Your task to perform on an android device: Open settings on Google Maps Image 0: 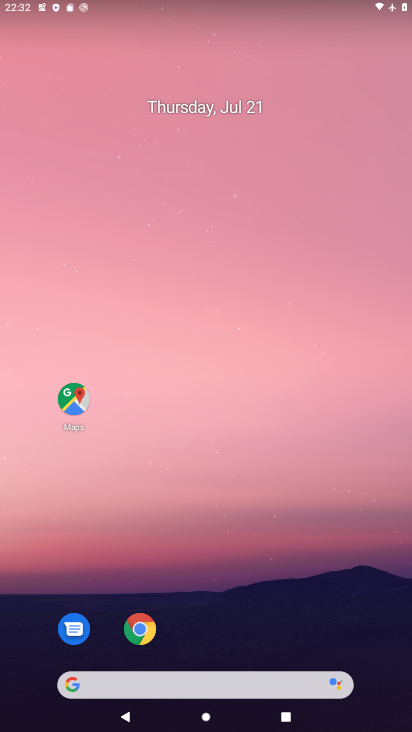
Step 0: press home button
Your task to perform on an android device: Open settings on Google Maps Image 1: 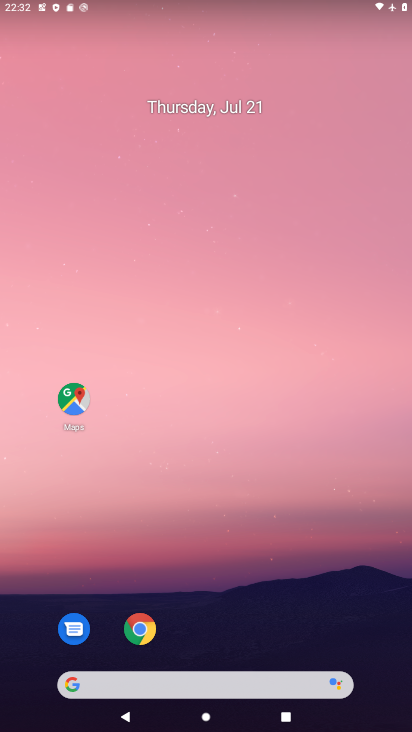
Step 1: drag from (247, 652) to (297, 117)
Your task to perform on an android device: Open settings on Google Maps Image 2: 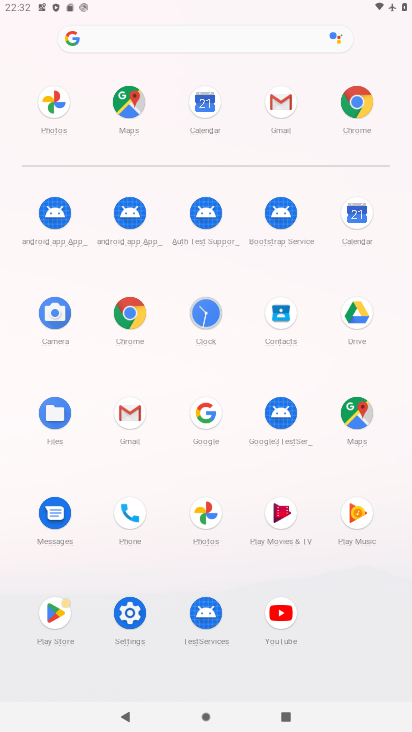
Step 2: click (366, 423)
Your task to perform on an android device: Open settings on Google Maps Image 3: 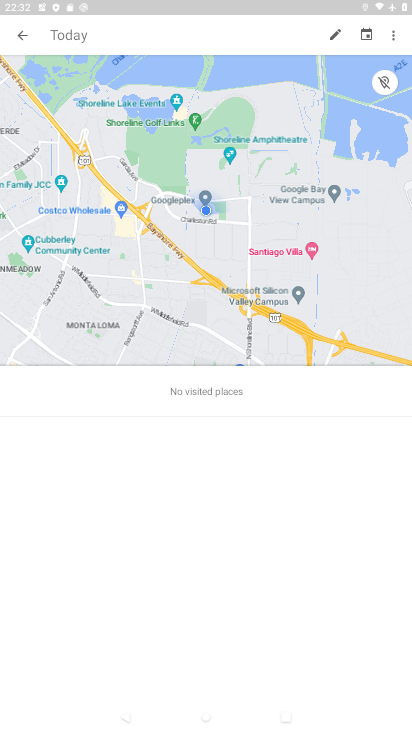
Step 3: click (22, 40)
Your task to perform on an android device: Open settings on Google Maps Image 4: 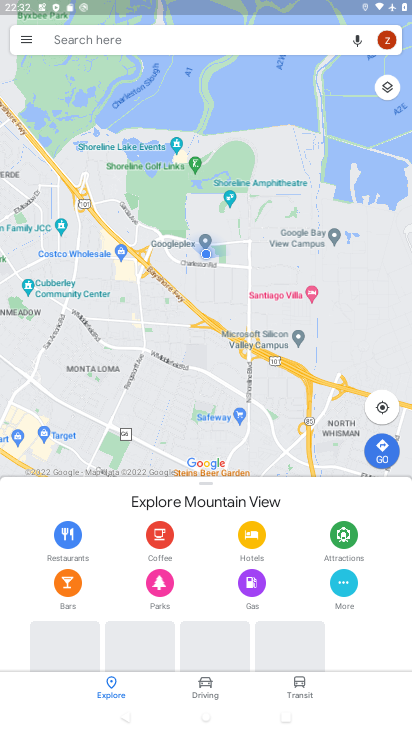
Step 4: click (28, 49)
Your task to perform on an android device: Open settings on Google Maps Image 5: 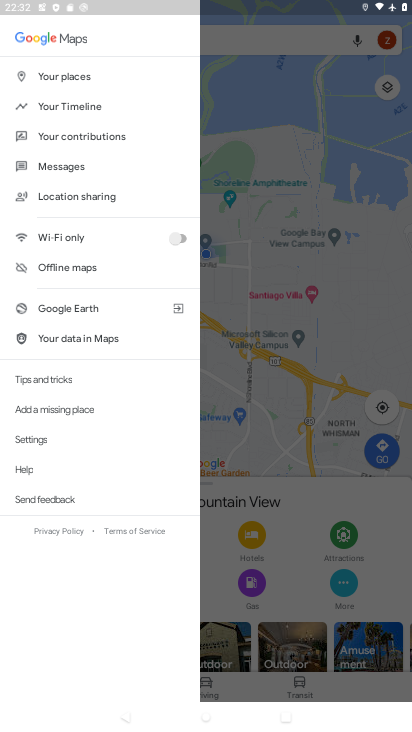
Step 5: click (37, 435)
Your task to perform on an android device: Open settings on Google Maps Image 6: 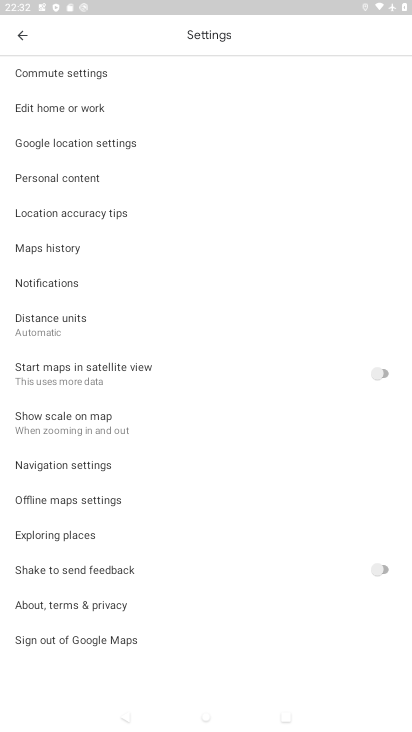
Step 6: task complete